Your task to perform on an android device: toggle notification dots Image 0: 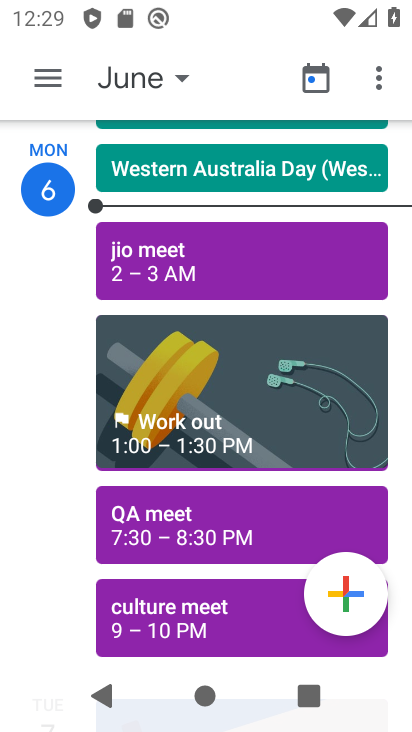
Step 0: press back button
Your task to perform on an android device: toggle notification dots Image 1: 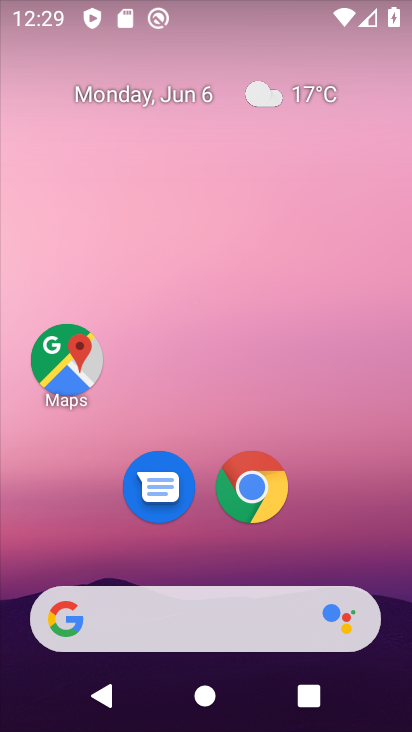
Step 1: drag from (215, 579) to (256, 67)
Your task to perform on an android device: toggle notification dots Image 2: 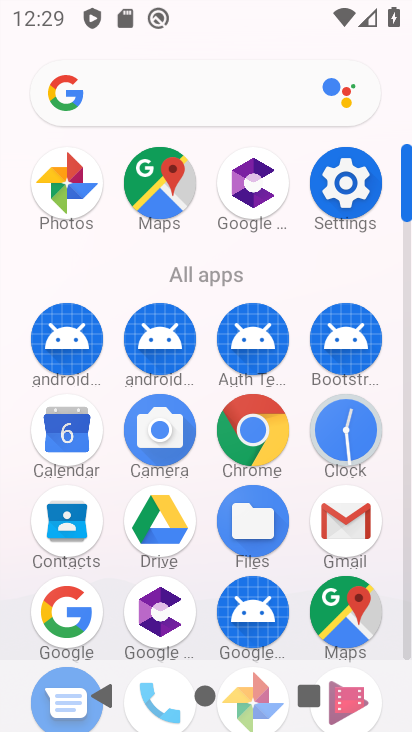
Step 2: click (348, 176)
Your task to perform on an android device: toggle notification dots Image 3: 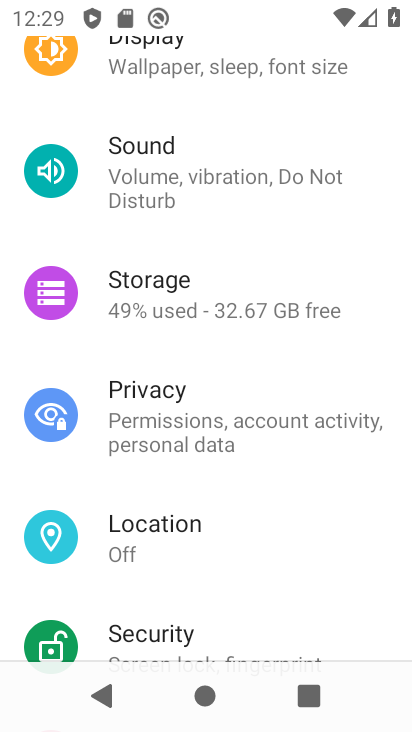
Step 3: drag from (233, 125) to (240, 614)
Your task to perform on an android device: toggle notification dots Image 4: 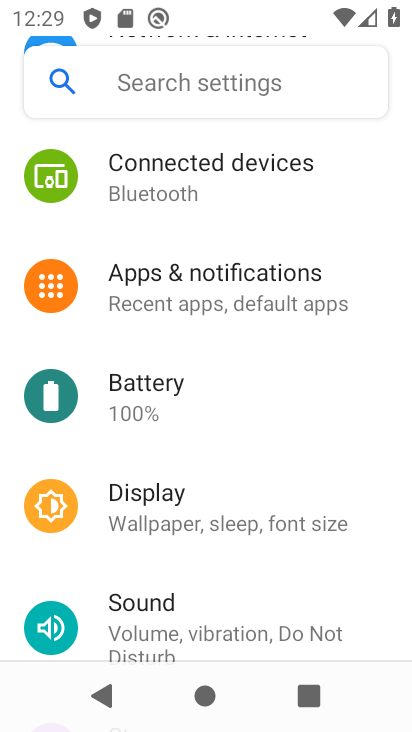
Step 4: click (209, 278)
Your task to perform on an android device: toggle notification dots Image 5: 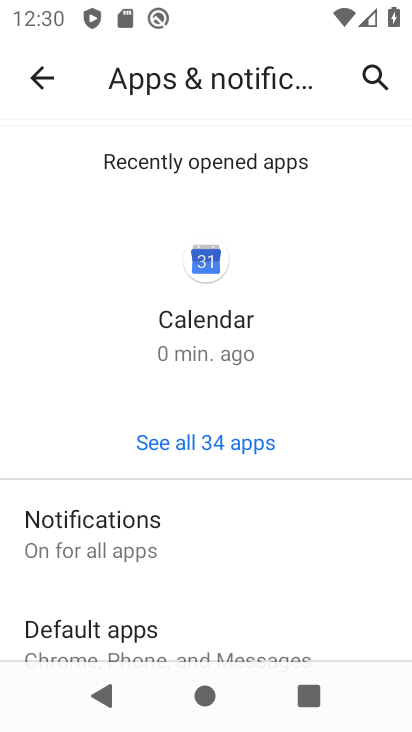
Step 5: click (160, 526)
Your task to perform on an android device: toggle notification dots Image 6: 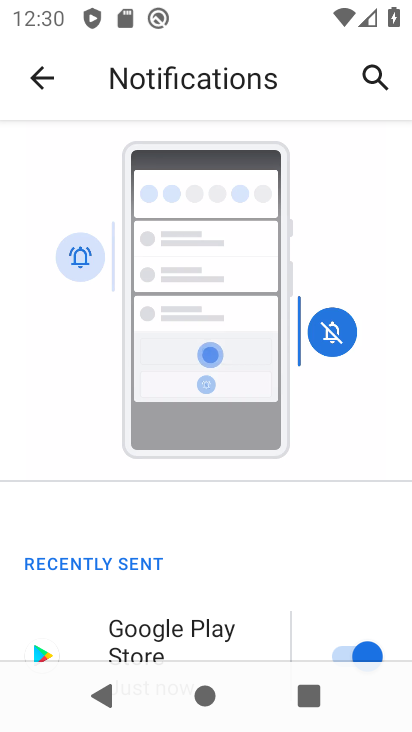
Step 6: drag from (189, 652) to (266, 124)
Your task to perform on an android device: toggle notification dots Image 7: 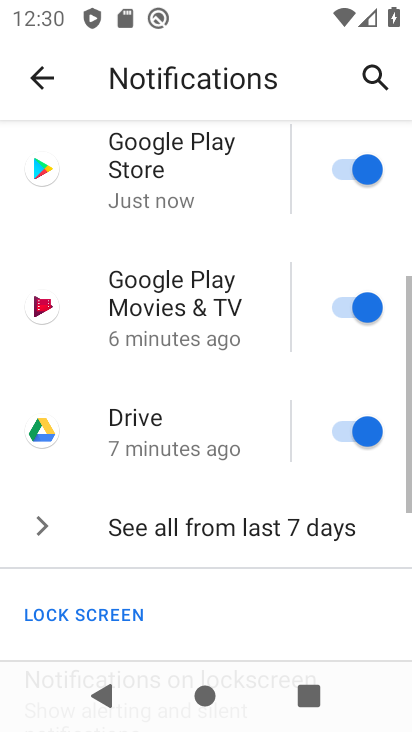
Step 7: drag from (180, 637) to (253, 145)
Your task to perform on an android device: toggle notification dots Image 8: 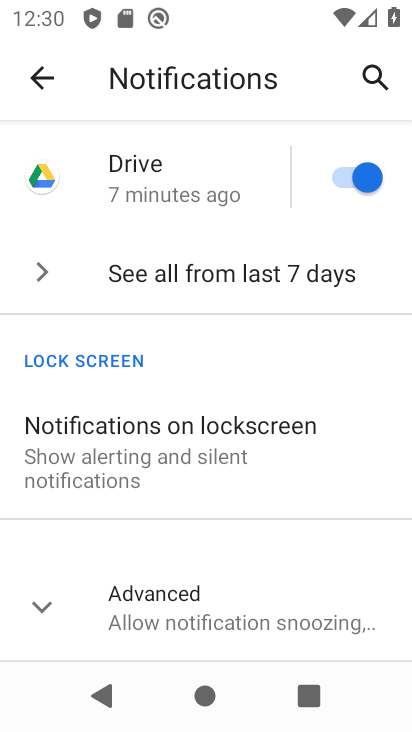
Step 8: click (188, 595)
Your task to perform on an android device: toggle notification dots Image 9: 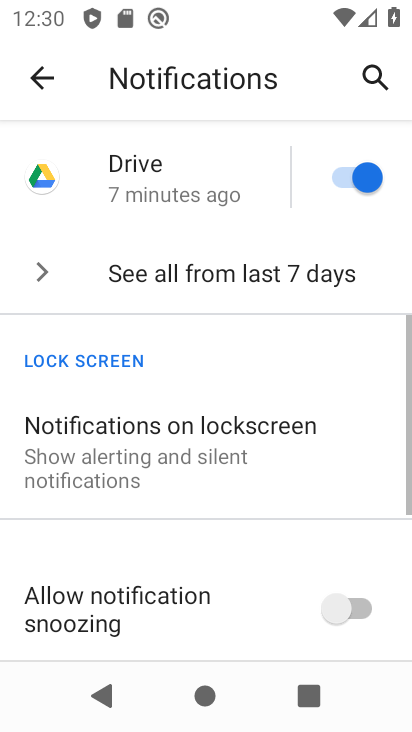
Step 9: drag from (199, 594) to (258, 145)
Your task to perform on an android device: toggle notification dots Image 10: 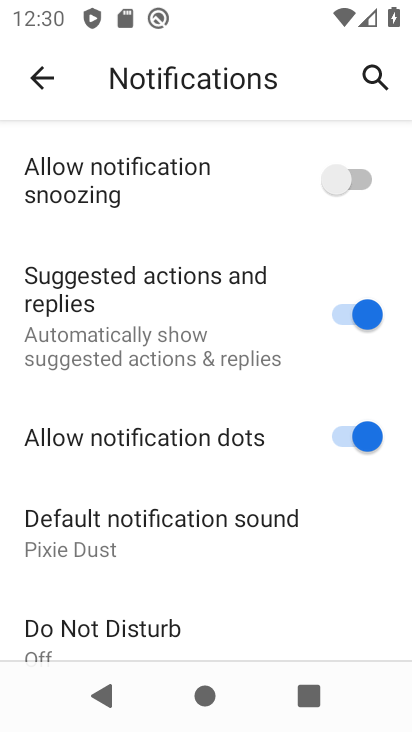
Step 10: click (365, 437)
Your task to perform on an android device: toggle notification dots Image 11: 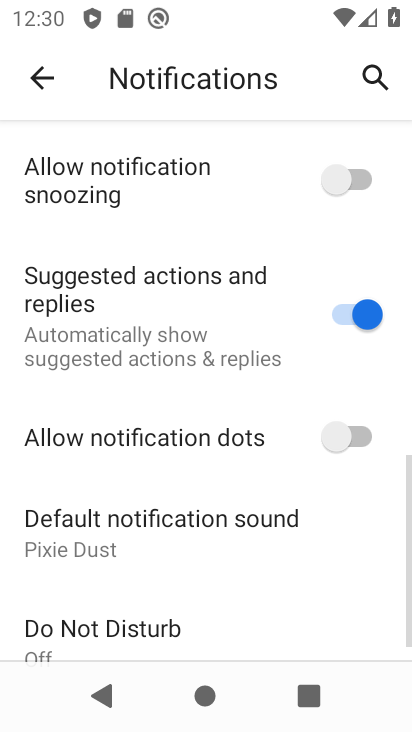
Step 11: task complete